Your task to perform on an android device: turn on the 24-hour format for clock Image 0: 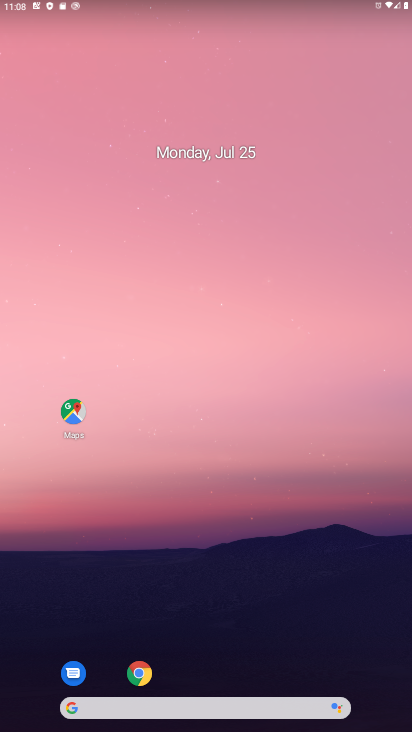
Step 0: drag from (225, 672) to (219, 0)
Your task to perform on an android device: turn on the 24-hour format for clock Image 1: 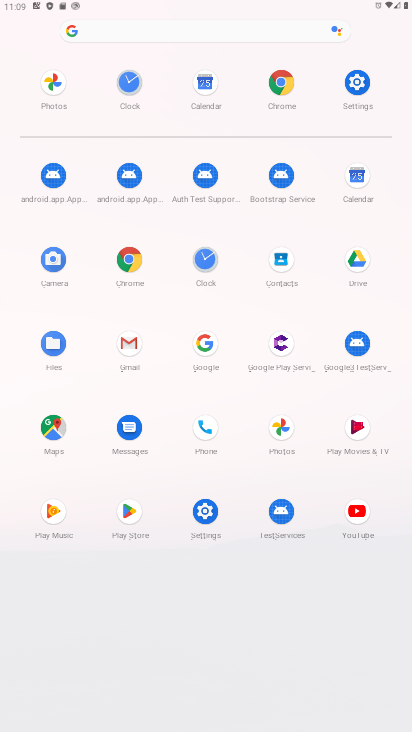
Step 1: click (205, 256)
Your task to perform on an android device: turn on the 24-hour format for clock Image 2: 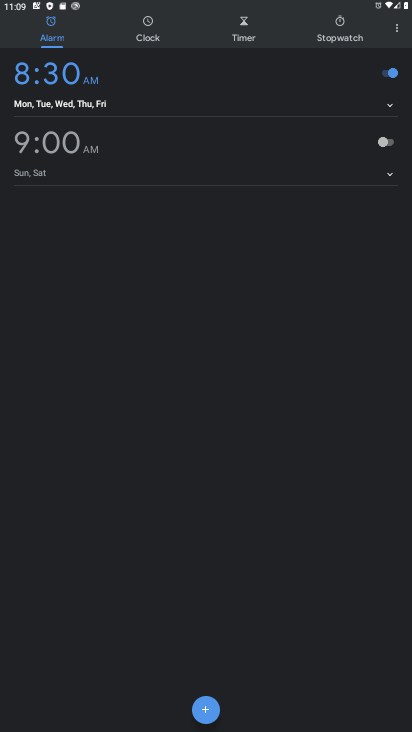
Step 2: click (392, 27)
Your task to perform on an android device: turn on the 24-hour format for clock Image 3: 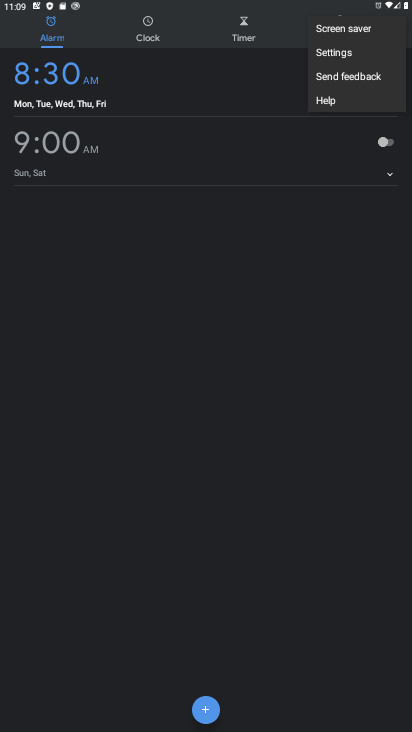
Step 3: click (358, 51)
Your task to perform on an android device: turn on the 24-hour format for clock Image 4: 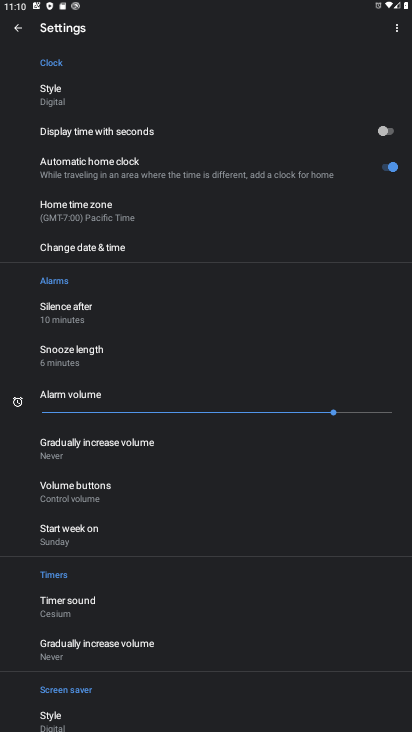
Step 4: click (134, 249)
Your task to perform on an android device: turn on the 24-hour format for clock Image 5: 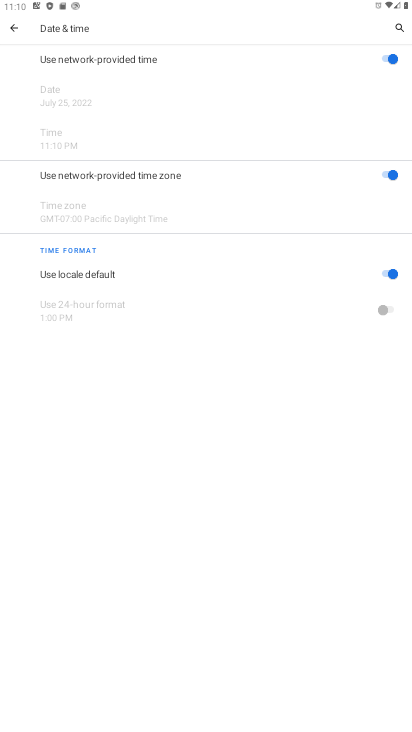
Step 5: click (387, 273)
Your task to perform on an android device: turn on the 24-hour format for clock Image 6: 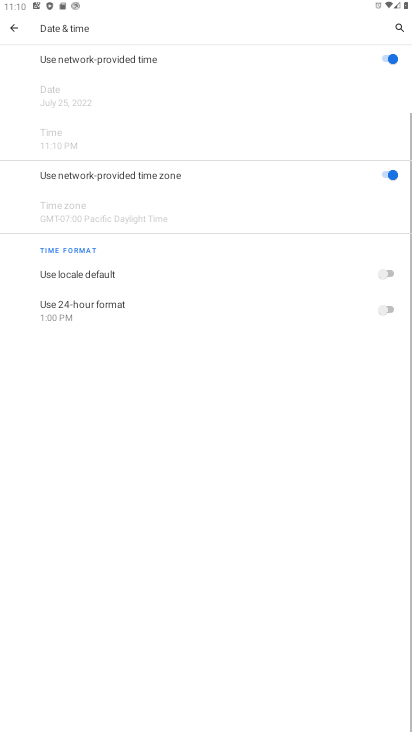
Step 6: click (386, 310)
Your task to perform on an android device: turn on the 24-hour format for clock Image 7: 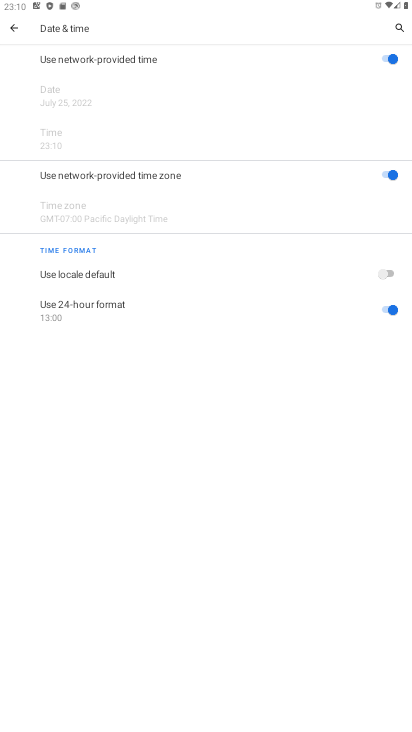
Step 7: task complete